Your task to perform on an android device: Search for flights from NYC to Buenos aires Image 0: 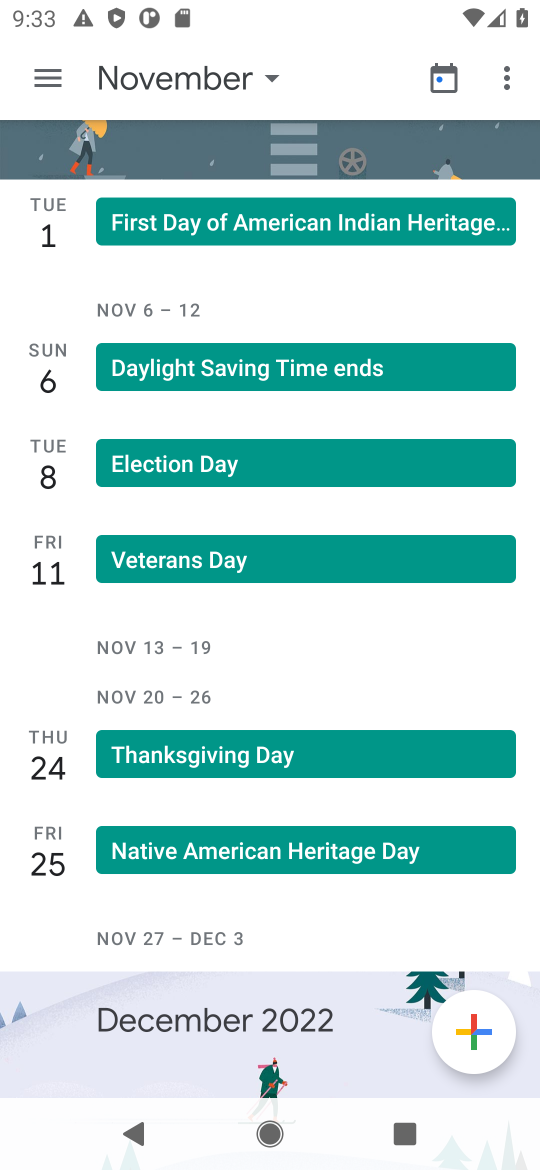
Step 0: press home button
Your task to perform on an android device: Search for flights from NYC to Buenos aires Image 1: 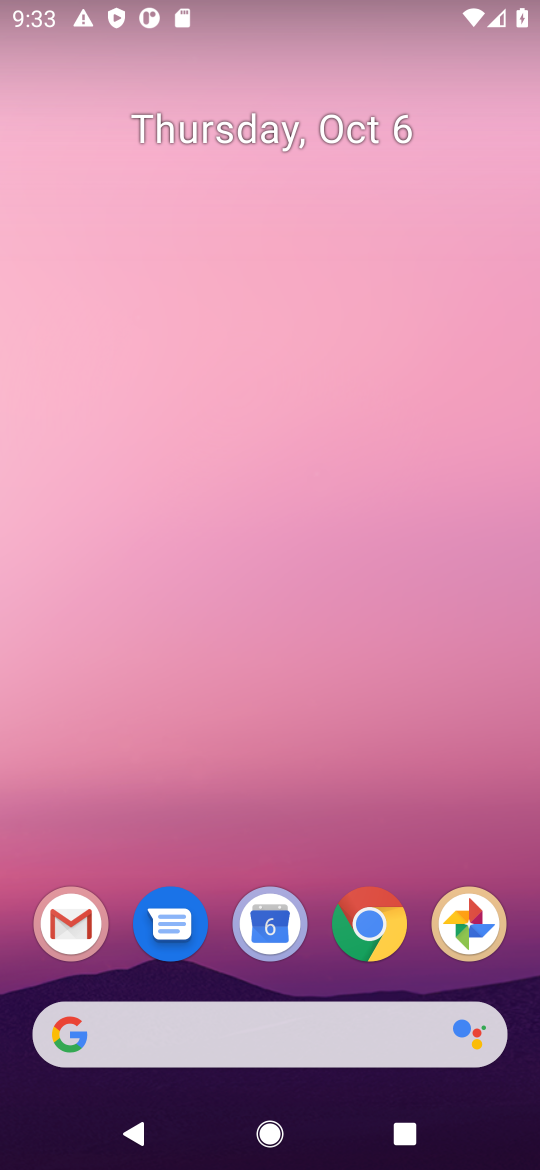
Step 1: click (375, 937)
Your task to perform on an android device: Search for flights from NYC to Buenos aires Image 2: 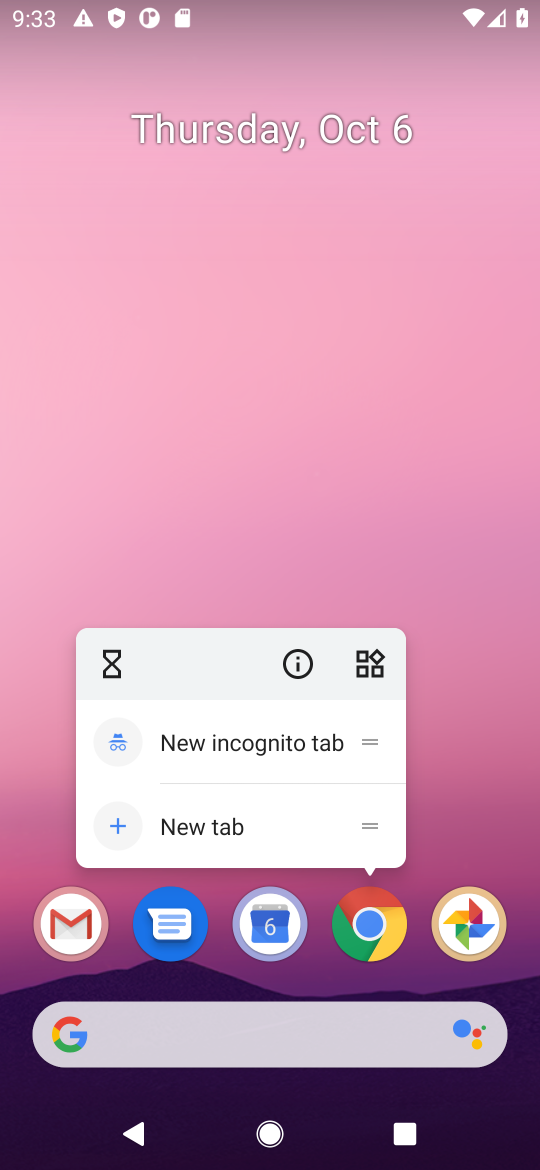
Step 2: click (351, 914)
Your task to perform on an android device: Search for flights from NYC to Buenos aires Image 3: 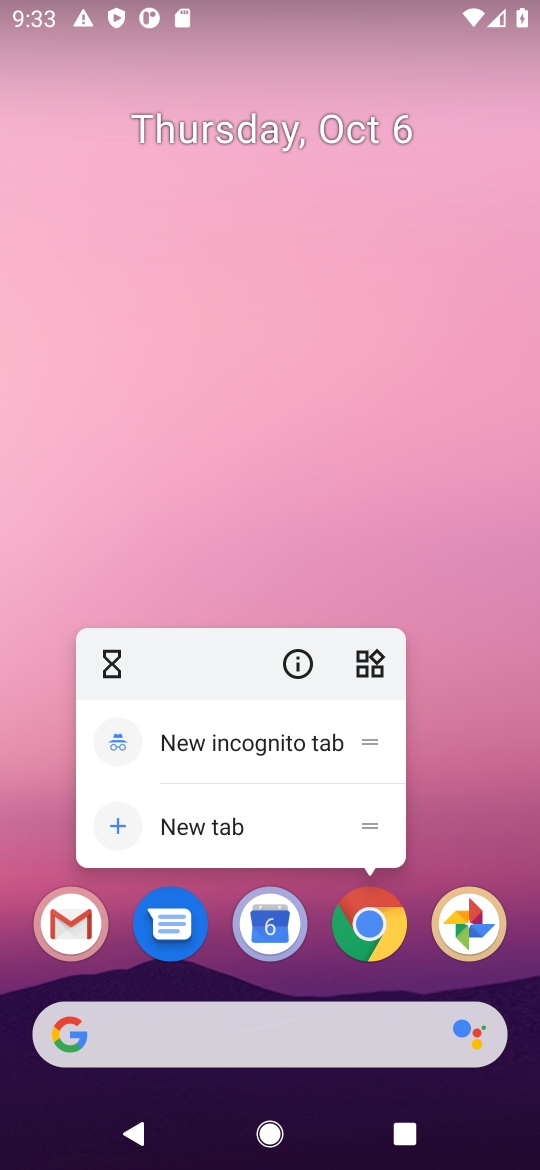
Step 3: click (351, 914)
Your task to perform on an android device: Search for flights from NYC to Buenos aires Image 4: 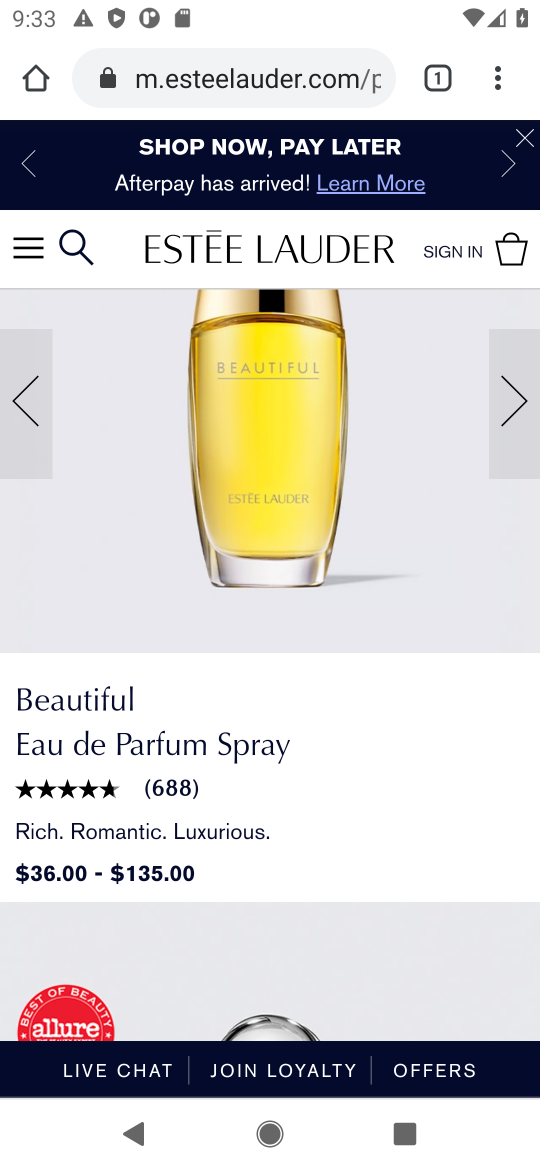
Step 4: click (342, 75)
Your task to perform on an android device: Search for flights from NYC to Buenos aires Image 5: 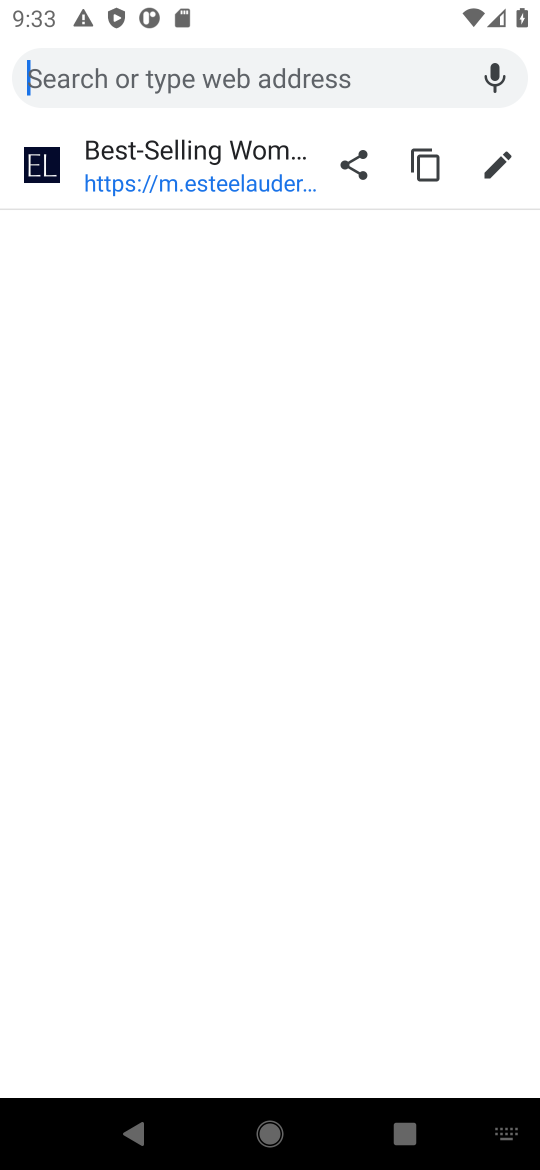
Step 5: click (251, 1162)
Your task to perform on an android device: Search for flights from NYC to Buenos aires Image 6: 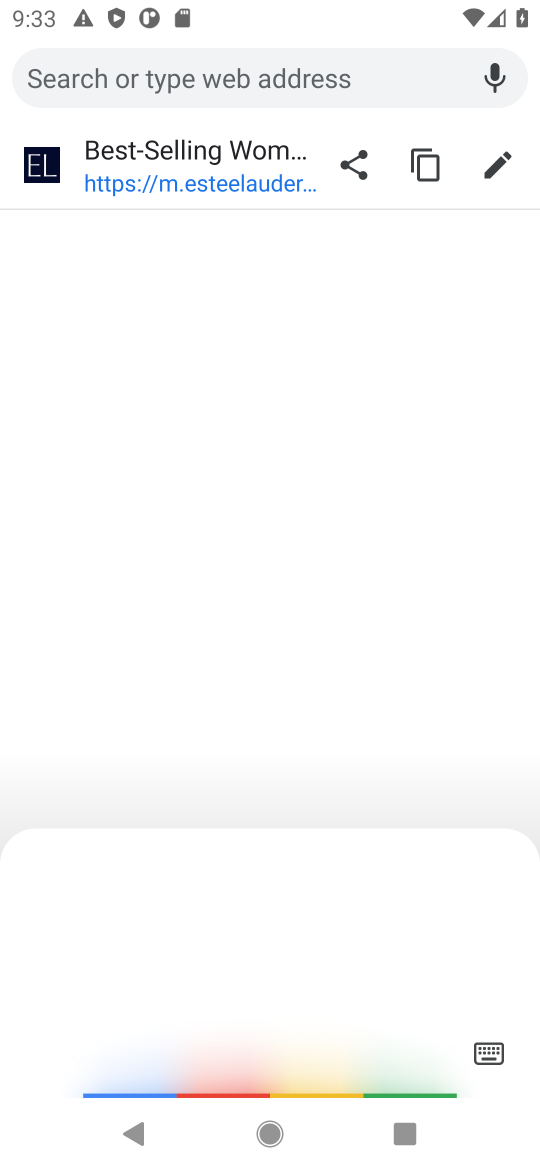
Step 6: type "flights from NYC to Buenos aires"
Your task to perform on an android device: Search for flights from NYC to Buenos aires Image 7: 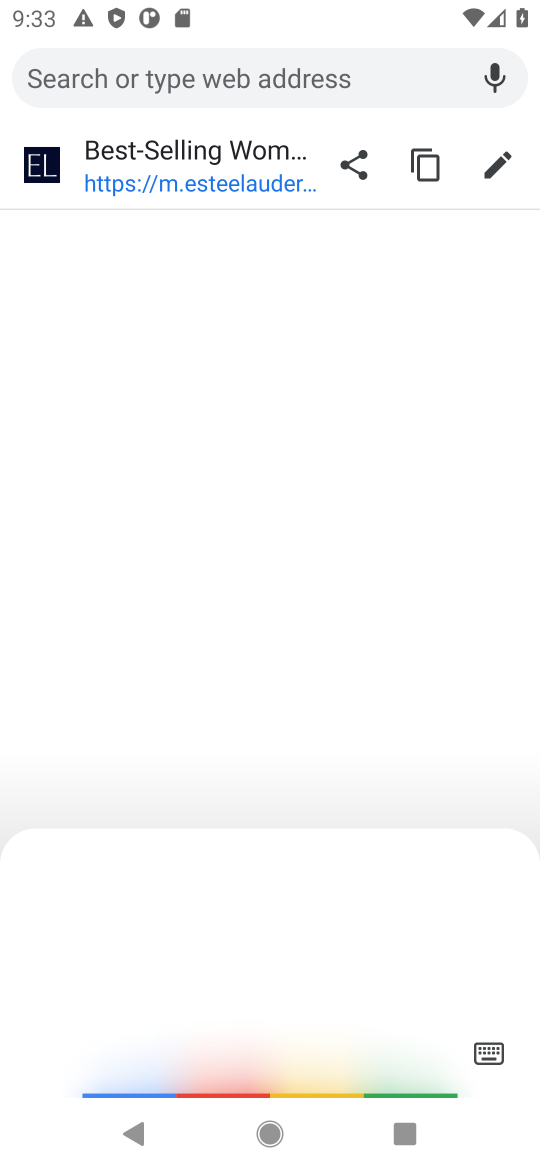
Step 7: click (536, 522)
Your task to perform on an android device: Search for flights from NYC to Buenos aires Image 8: 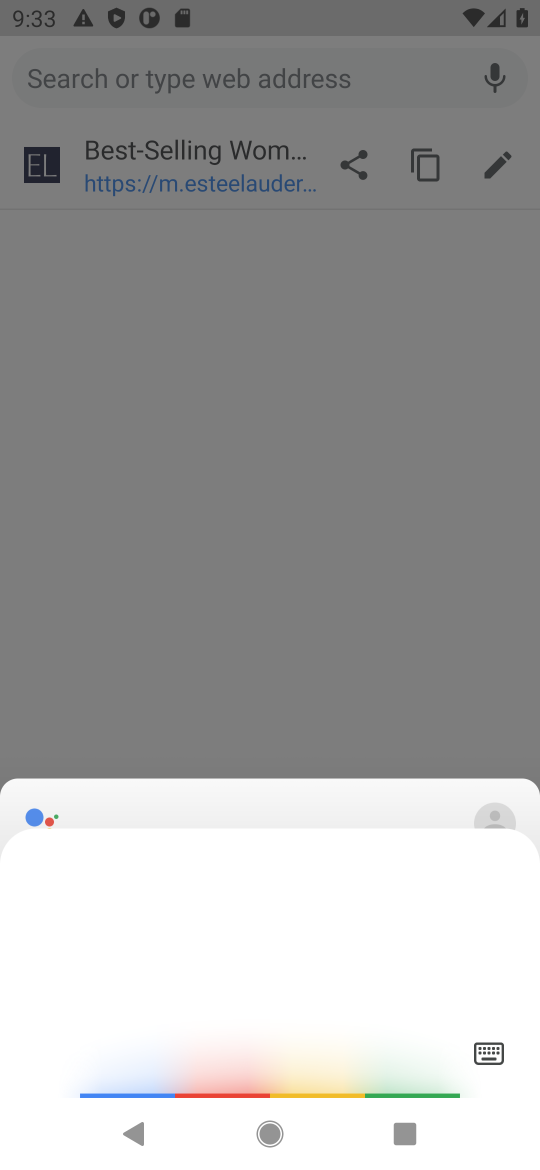
Step 8: click (166, 72)
Your task to perform on an android device: Search for flights from NYC to Buenos aires Image 9: 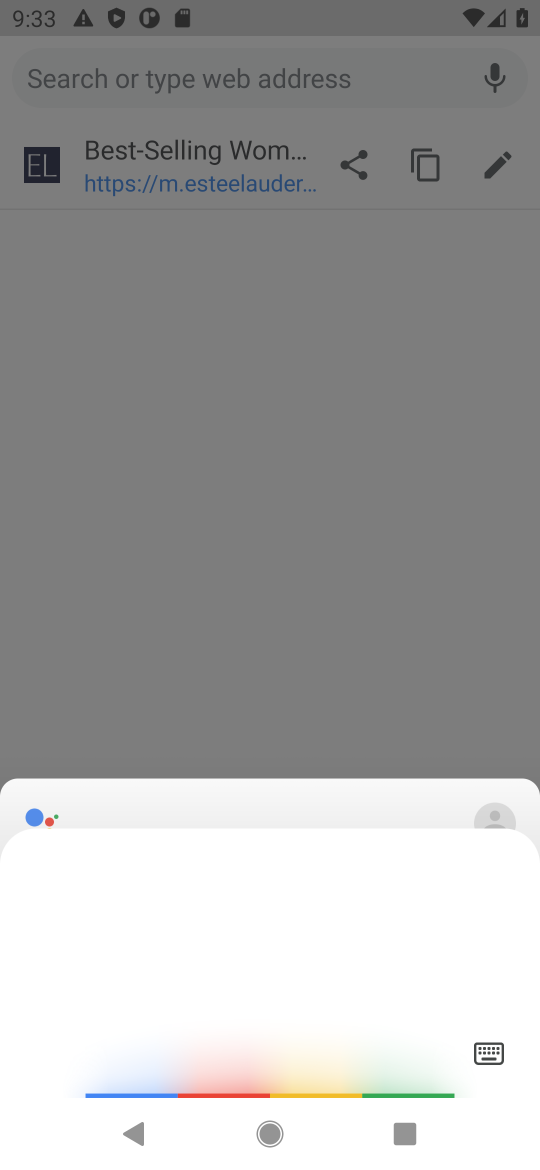
Step 9: drag from (321, 573) to (493, 197)
Your task to perform on an android device: Search for flights from NYC to Buenos aires Image 10: 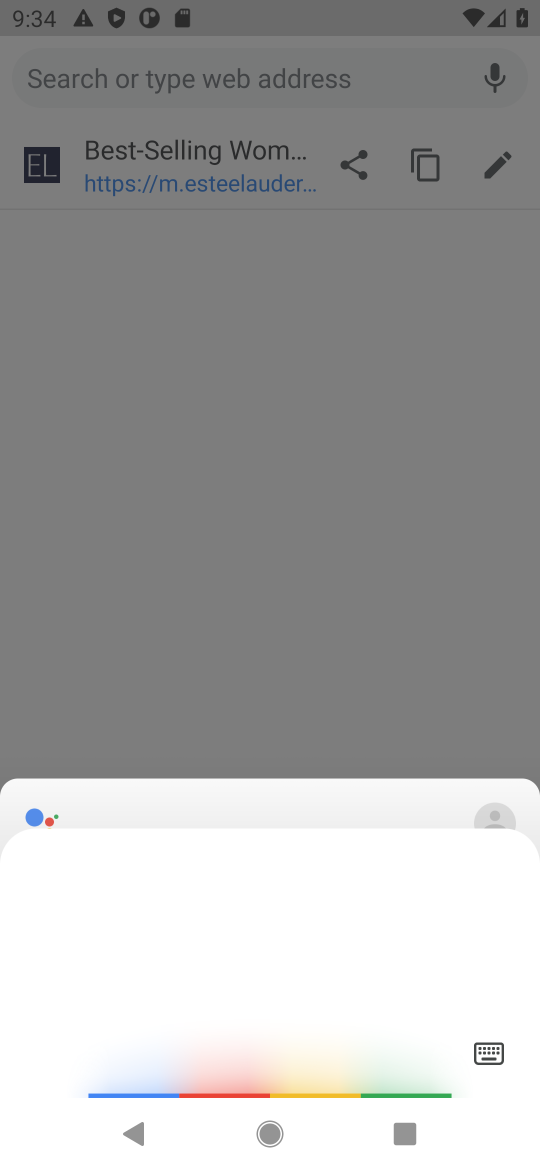
Step 10: click (91, 59)
Your task to perform on an android device: Search for flights from NYC to Buenos aires Image 11: 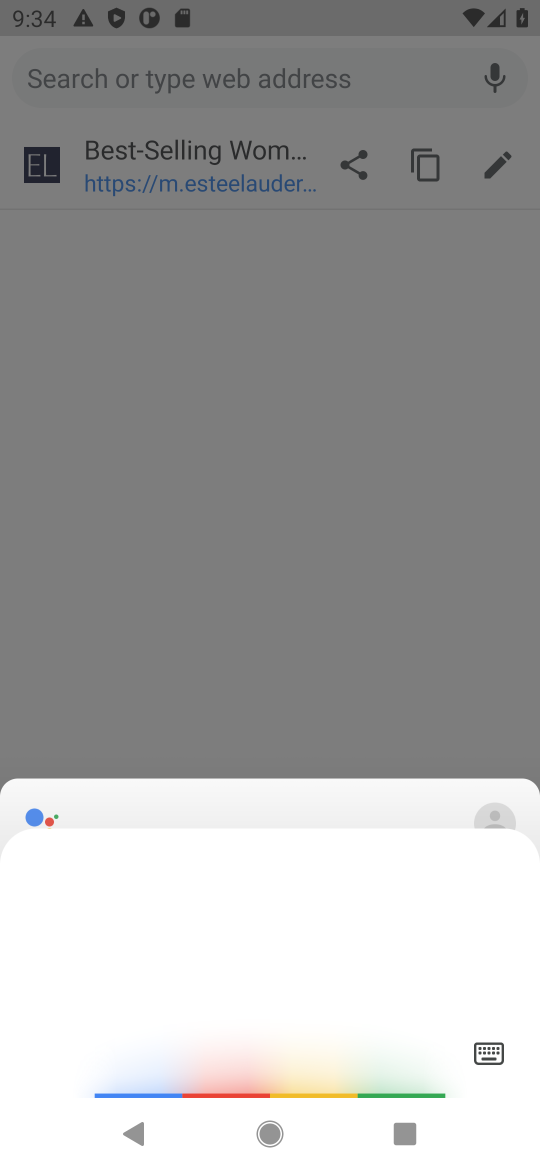
Step 11: press back button
Your task to perform on an android device: Search for flights from NYC to Buenos aires Image 12: 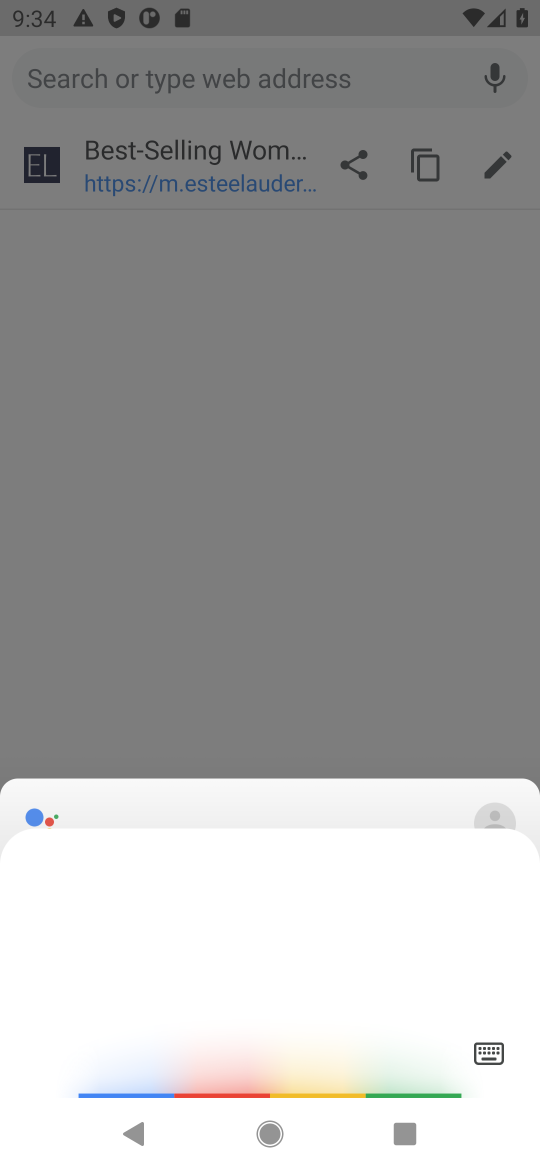
Step 12: press home button
Your task to perform on an android device: Search for flights from NYC to Buenos aires Image 13: 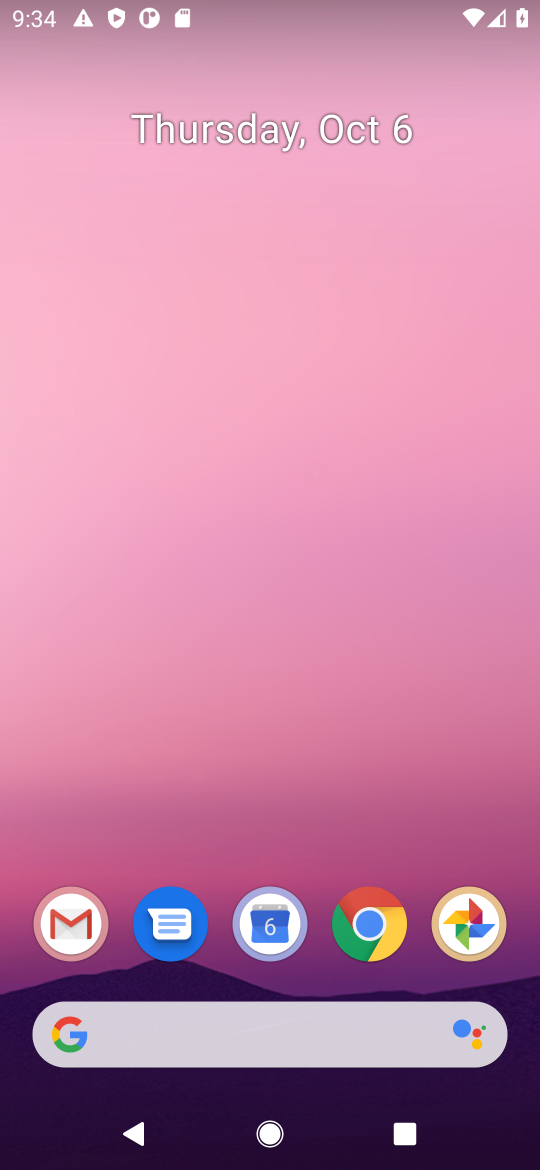
Step 13: click (371, 925)
Your task to perform on an android device: Search for flights from NYC to Buenos aires Image 14: 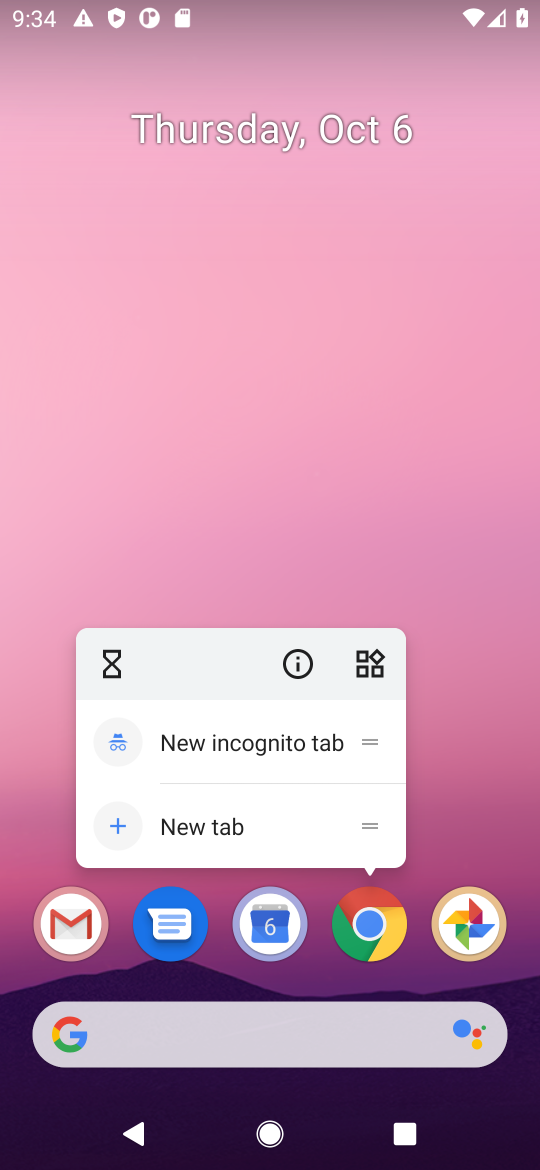
Step 14: click (371, 925)
Your task to perform on an android device: Search for flights from NYC to Buenos aires Image 15: 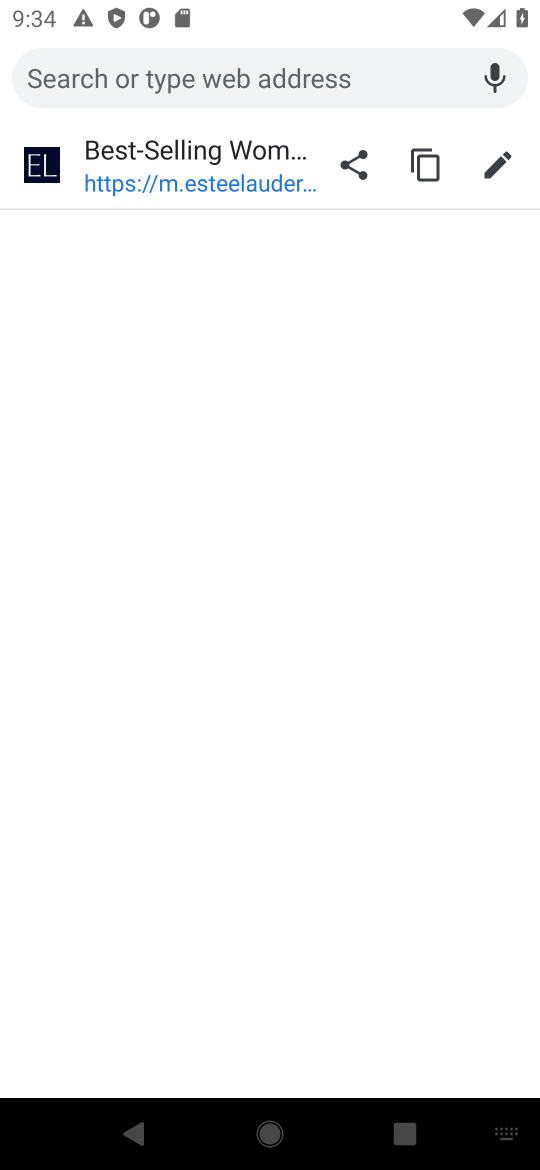
Step 15: click (138, 75)
Your task to perform on an android device: Search for flights from NYC to Buenos aires Image 16: 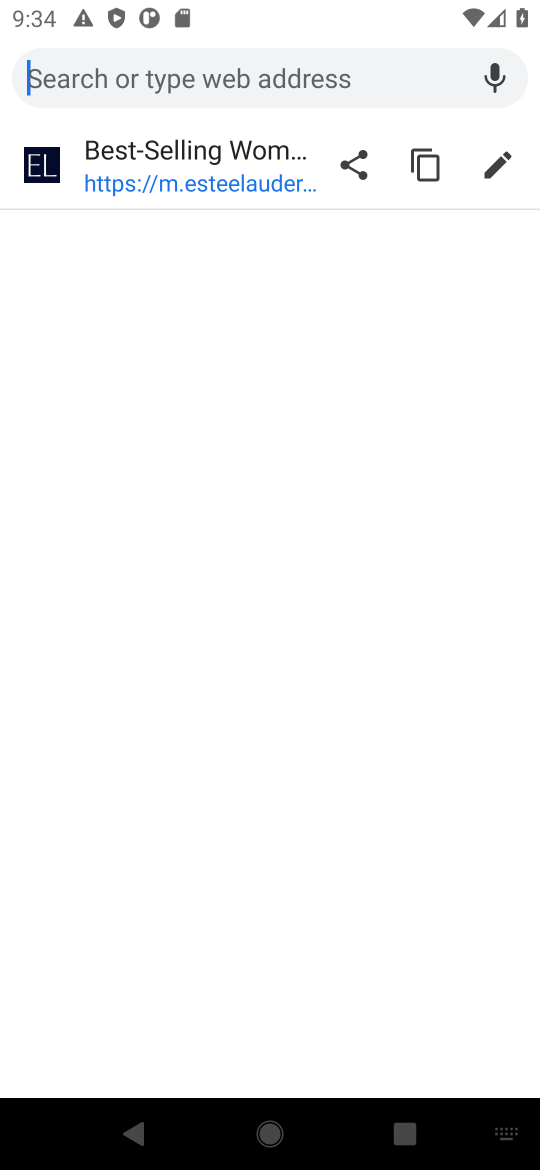
Step 16: type "flights from NYC to Buenos aires"
Your task to perform on an android device: Search for flights from NYC to Buenos aires Image 17: 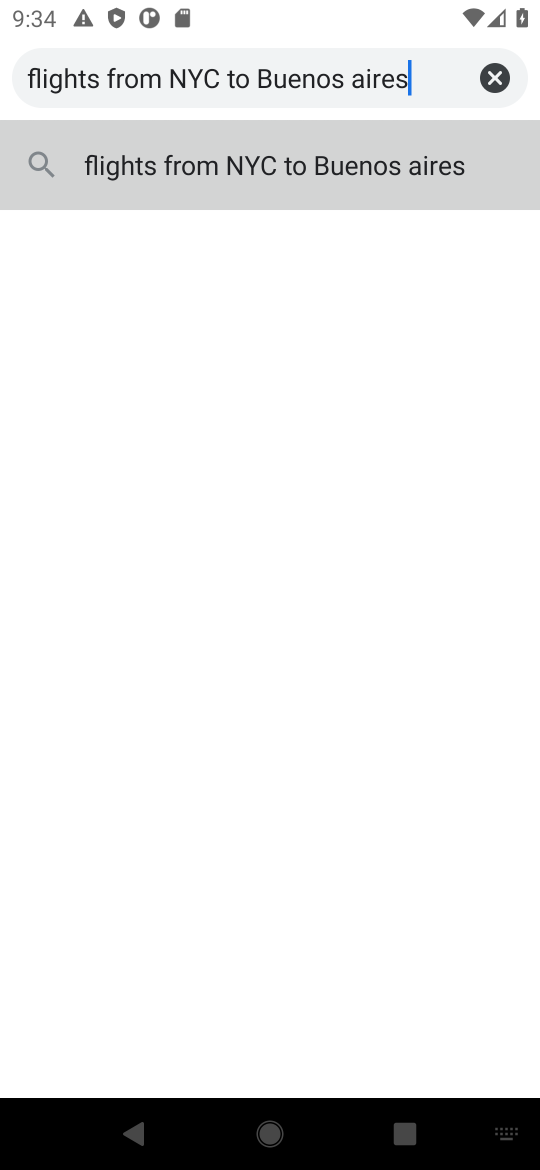
Step 17: click (301, 167)
Your task to perform on an android device: Search for flights from NYC to Buenos aires Image 18: 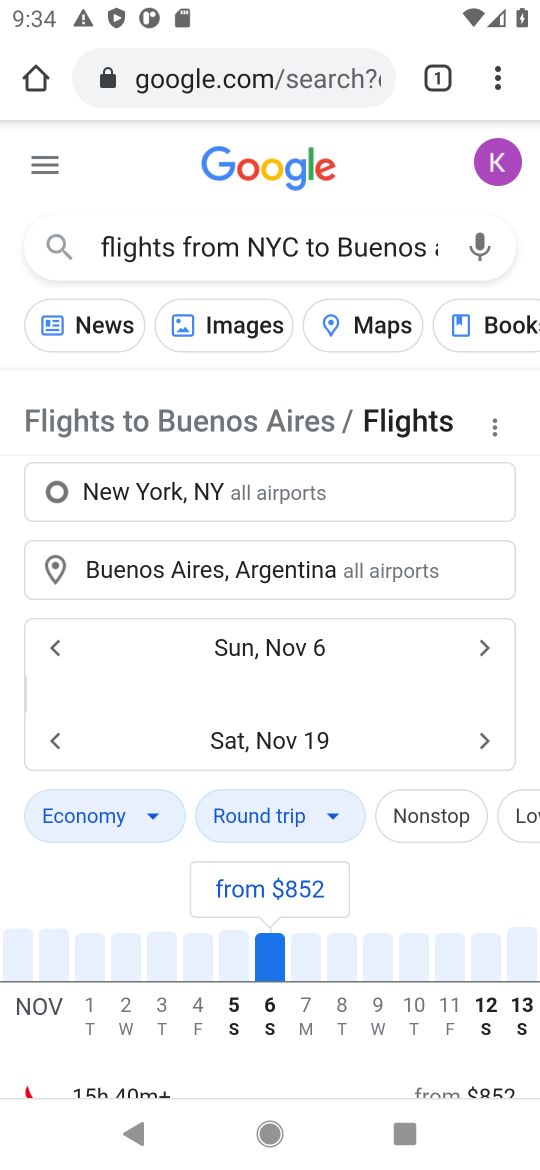
Step 18: drag from (147, 677) to (404, 76)
Your task to perform on an android device: Search for flights from NYC to Buenos aires Image 19: 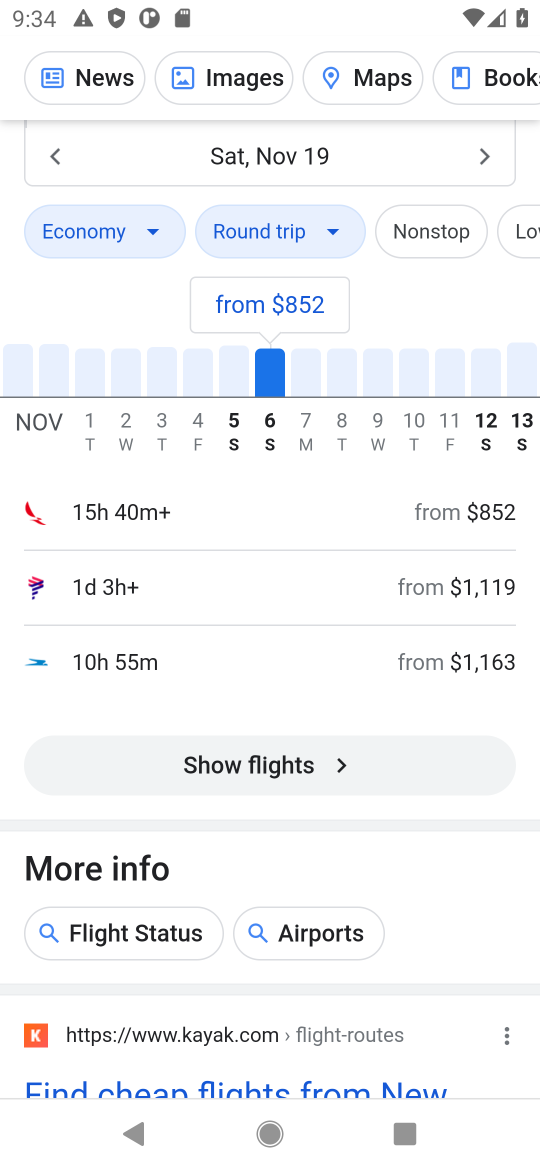
Step 19: drag from (307, 846) to (373, 568)
Your task to perform on an android device: Search for flights from NYC to Buenos aires Image 20: 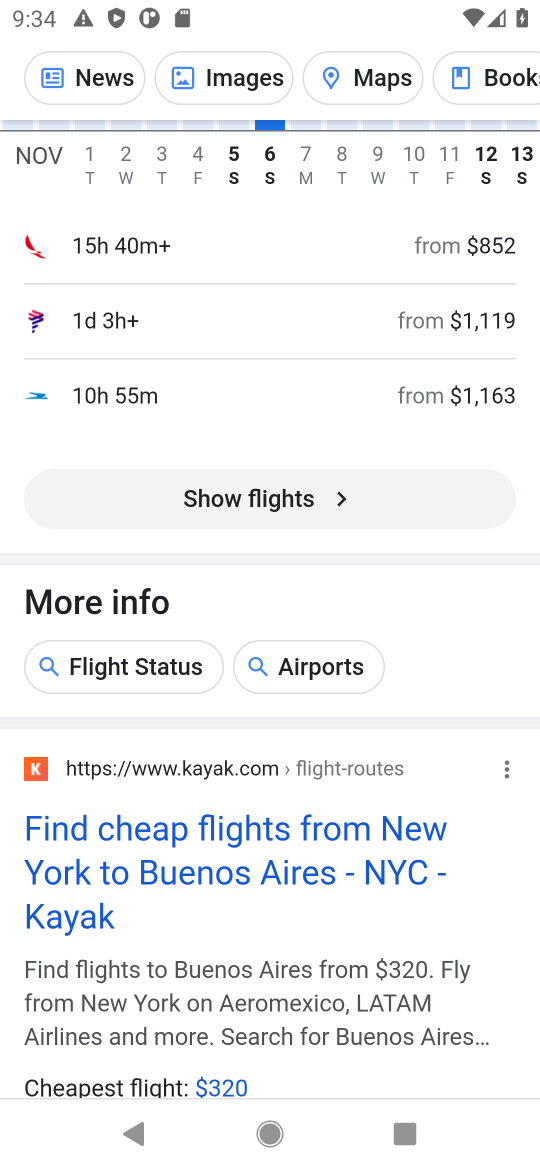
Step 20: click (306, 496)
Your task to perform on an android device: Search for flights from NYC to Buenos aires Image 21: 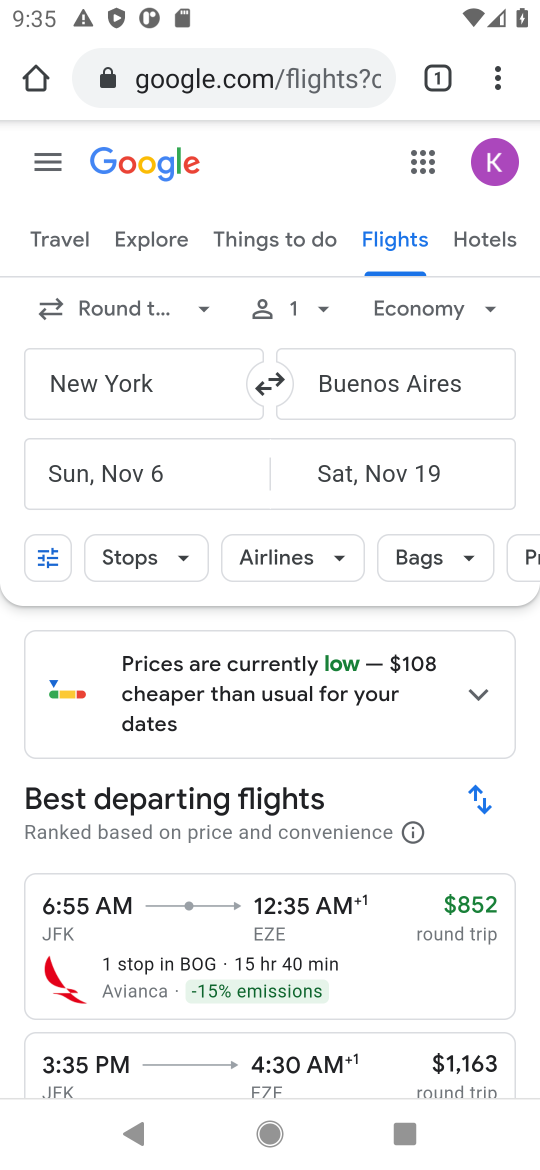
Step 21: task complete